Your task to perform on an android device: Go to Yahoo.com Image 0: 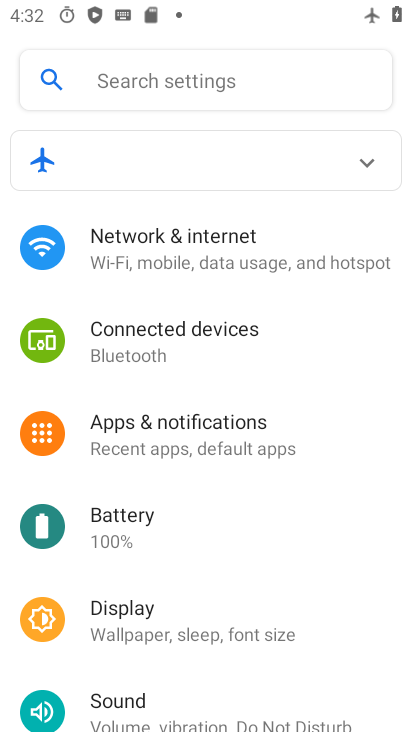
Step 0: press home button
Your task to perform on an android device: Go to Yahoo.com Image 1: 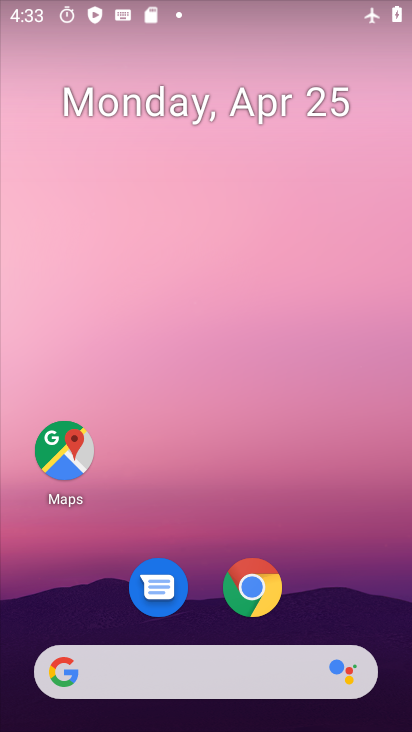
Step 1: drag from (334, 465) to (333, 141)
Your task to perform on an android device: Go to Yahoo.com Image 2: 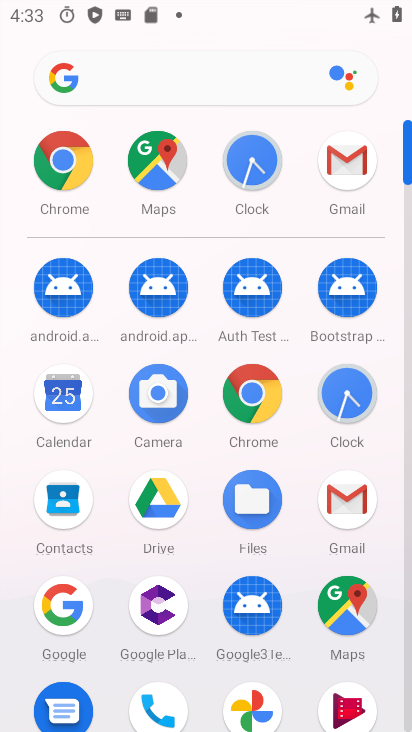
Step 2: click (256, 399)
Your task to perform on an android device: Go to Yahoo.com Image 3: 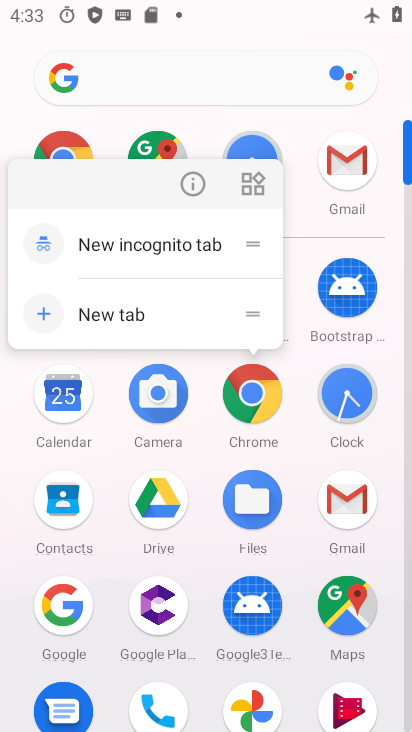
Step 3: click (259, 396)
Your task to perform on an android device: Go to Yahoo.com Image 4: 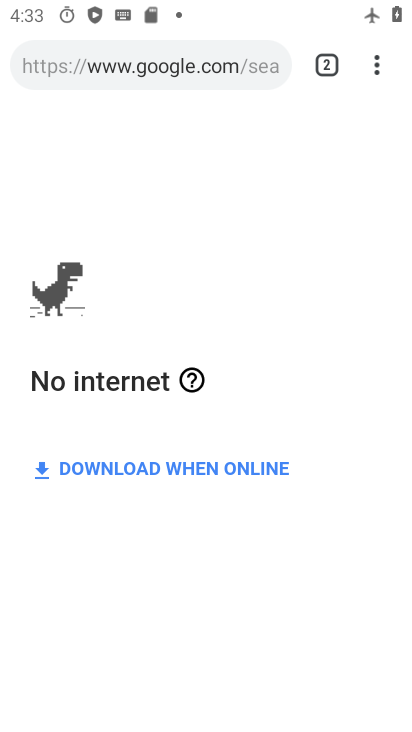
Step 4: click (213, 72)
Your task to perform on an android device: Go to Yahoo.com Image 5: 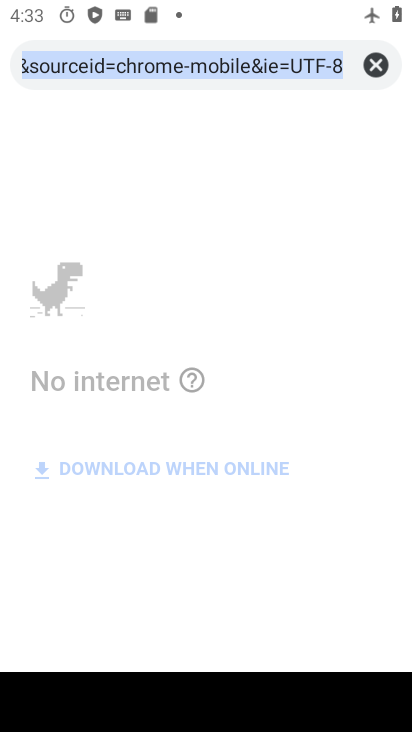
Step 5: type "yahoo.com"
Your task to perform on an android device: Go to Yahoo.com Image 6: 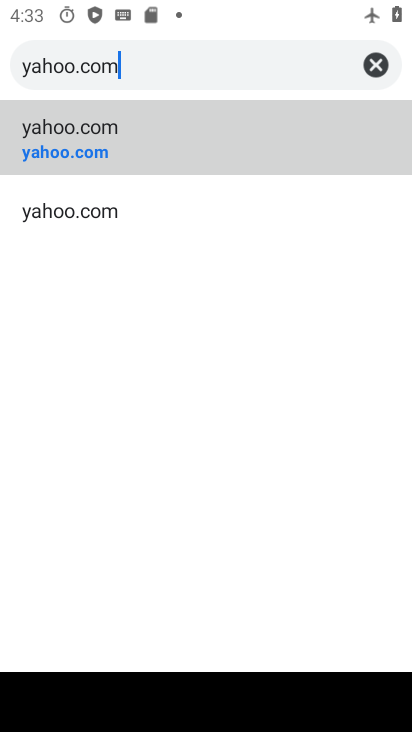
Step 6: click (100, 123)
Your task to perform on an android device: Go to Yahoo.com Image 7: 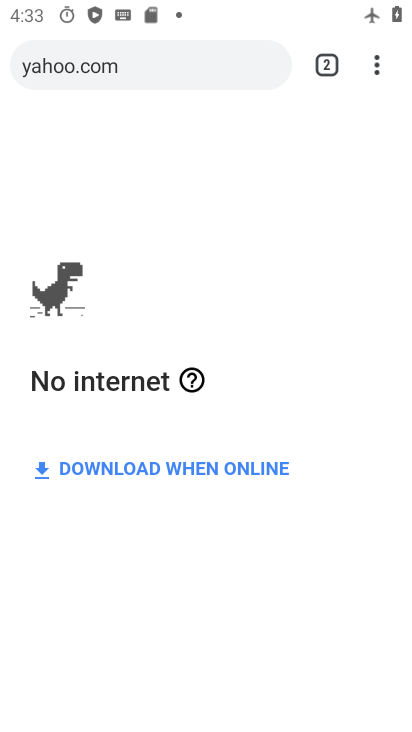
Step 7: task complete